Your task to perform on an android device: Show me popular games on the Play Store Image 0: 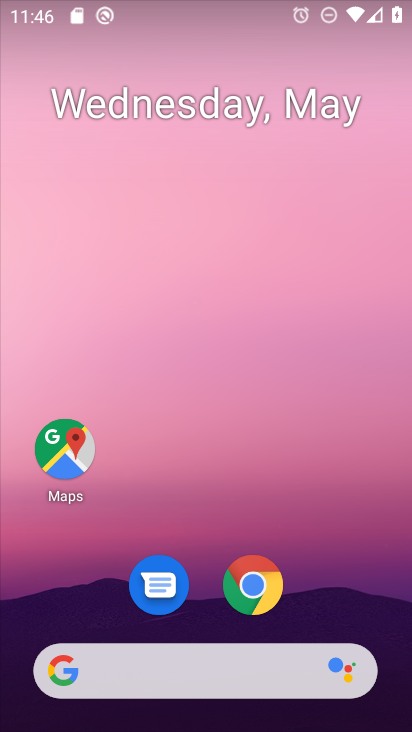
Step 0: drag from (210, 454) to (183, 51)
Your task to perform on an android device: Show me popular games on the Play Store Image 1: 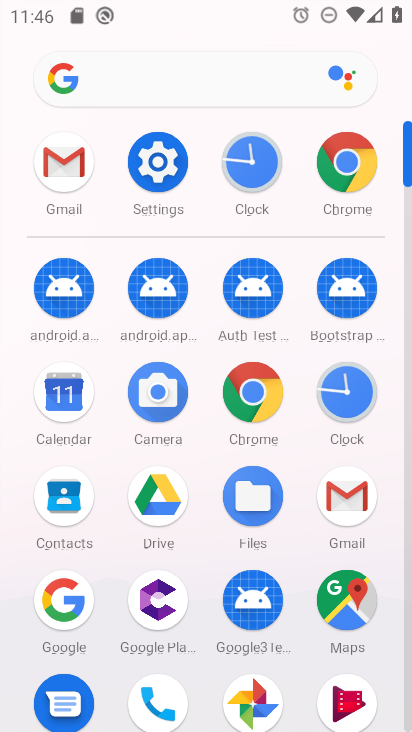
Step 1: drag from (199, 525) to (196, 260)
Your task to perform on an android device: Show me popular games on the Play Store Image 2: 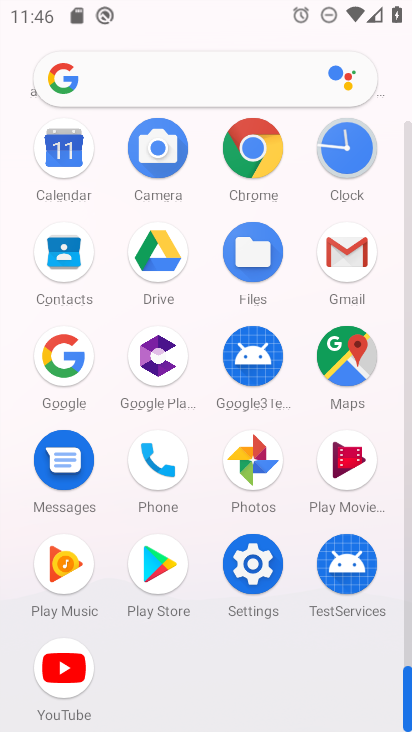
Step 2: click (166, 546)
Your task to perform on an android device: Show me popular games on the Play Store Image 3: 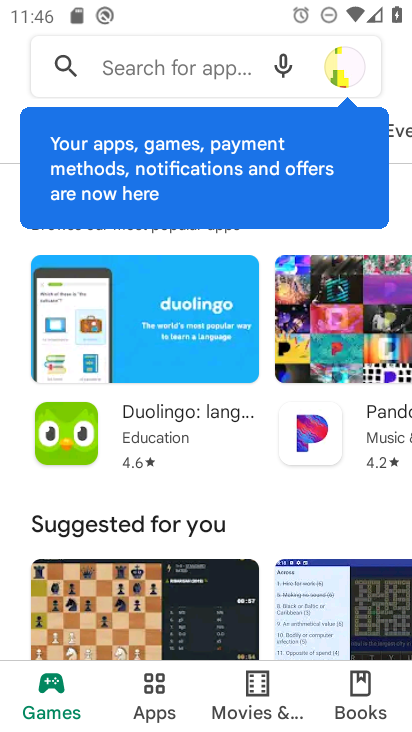
Step 3: click (151, 694)
Your task to perform on an android device: Show me popular games on the Play Store Image 4: 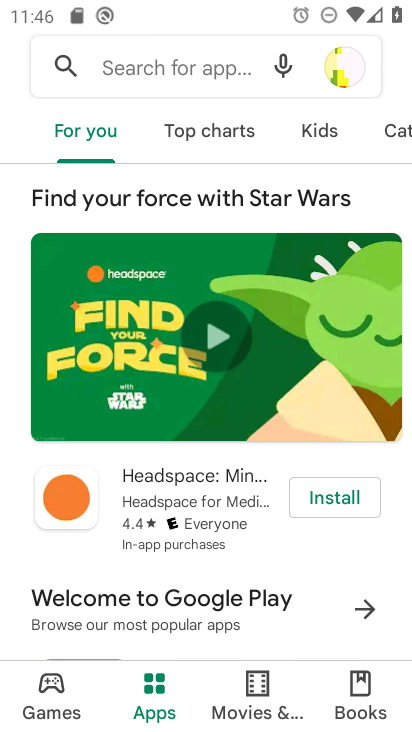
Step 4: click (398, 128)
Your task to perform on an android device: Show me popular games on the Play Store Image 5: 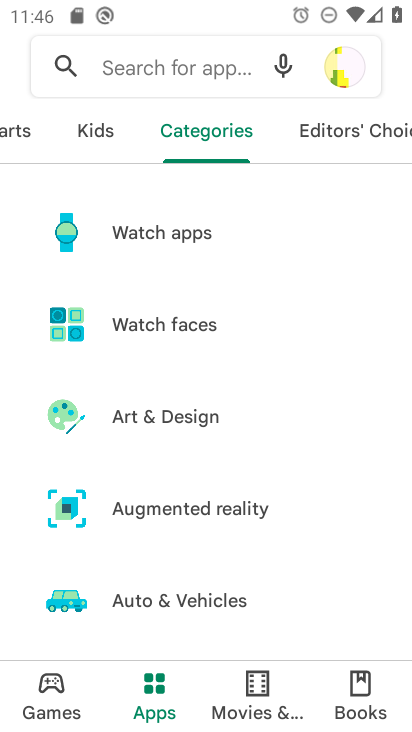
Step 5: drag from (259, 526) to (232, 169)
Your task to perform on an android device: Show me popular games on the Play Store Image 6: 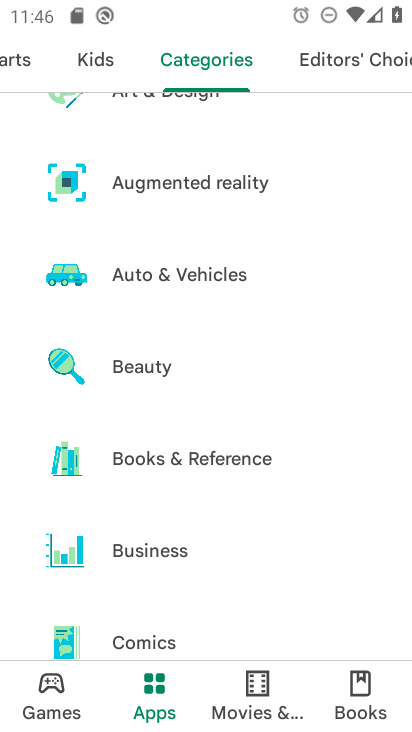
Step 6: click (48, 693)
Your task to perform on an android device: Show me popular games on the Play Store Image 7: 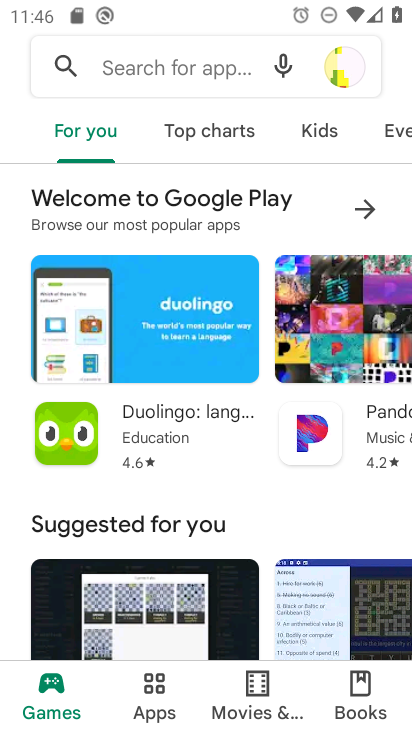
Step 7: drag from (275, 502) to (236, 75)
Your task to perform on an android device: Show me popular games on the Play Store Image 8: 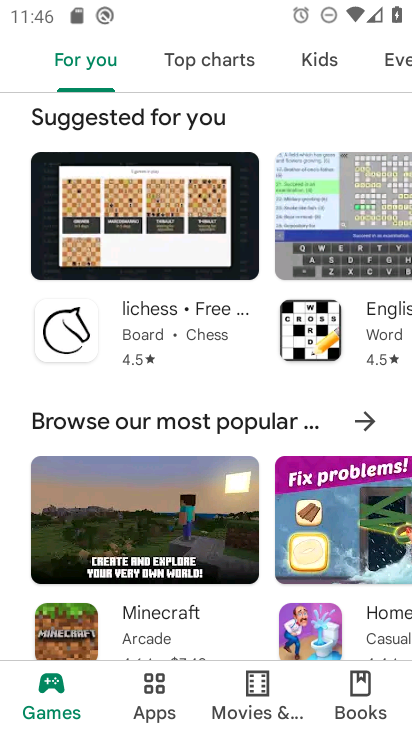
Step 8: click (360, 421)
Your task to perform on an android device: Show me popular games on the Play Store Image 9: 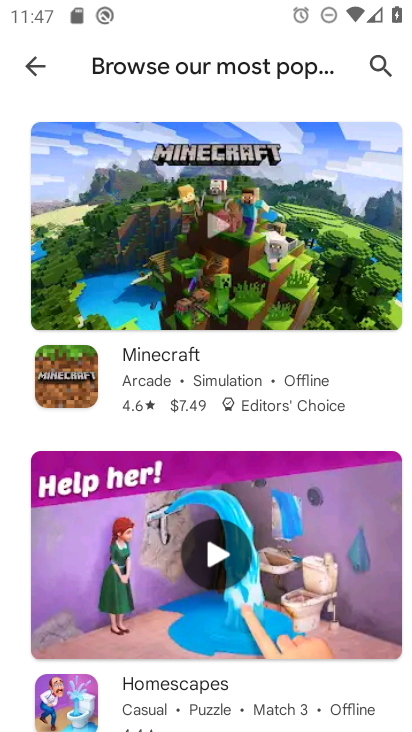
Step 9: task complete